Your task to perform on an android device: open app "WhatsApp Messenger" Image 0: 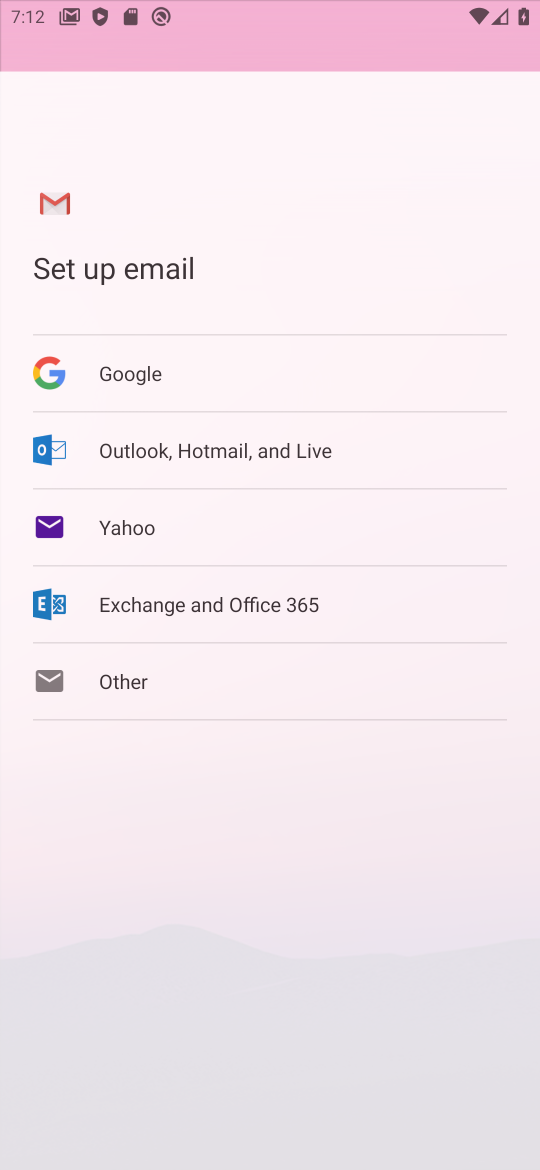
Step 0: press home button
Your task to perform on an android device: open app "WhatsApp Messenger" Image 1: 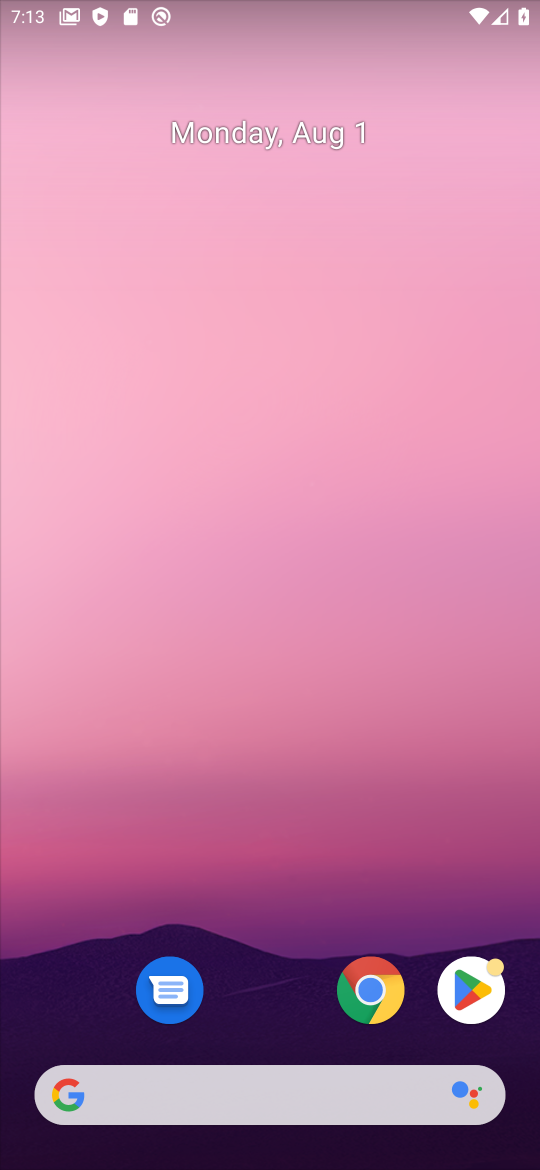
Step 1: click (464, 998)
Your task to perform on an android device: open app "WhatsApp Messenger" Image 2: 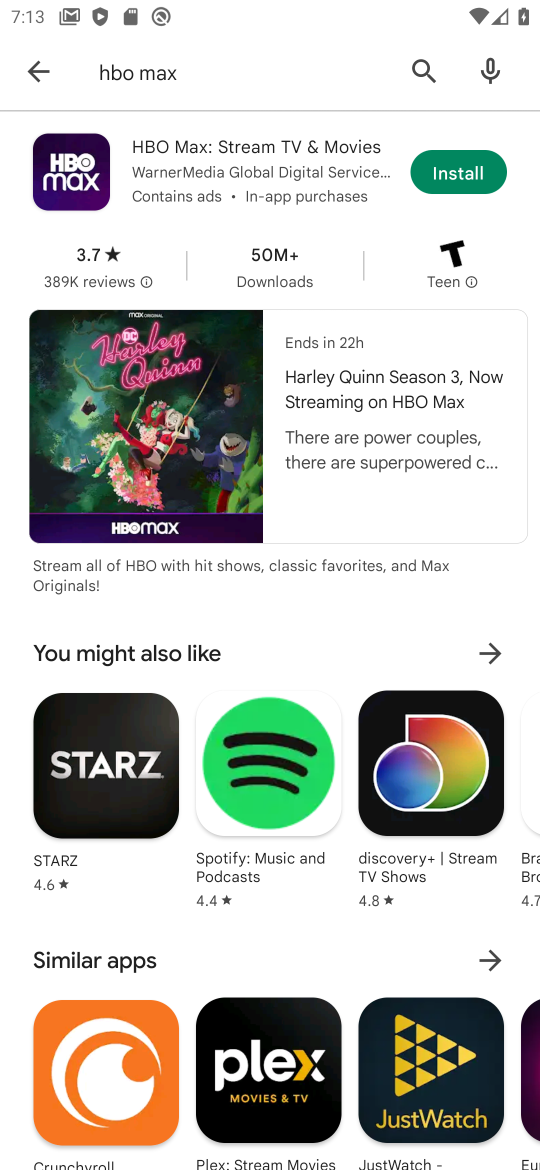
Step 2: click (416, 58)
Your task to perform on an android device: open app "WhatsApp Messenger" Image 3: 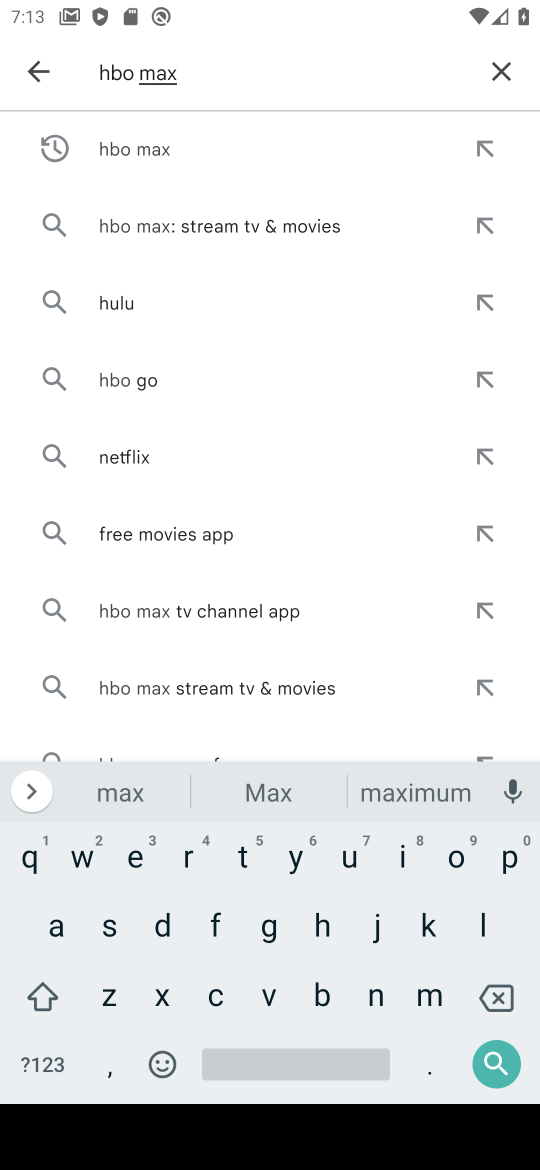
Step 3: click (506, 65)
Your task to perform on an android device: open app "WhatsApp Messenger" Image 4: 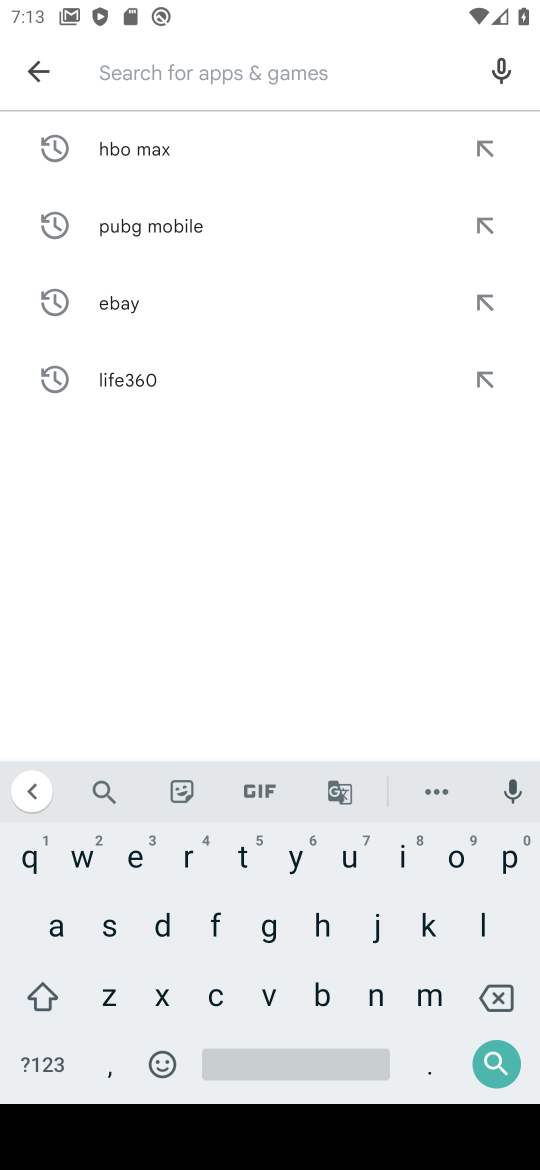
Step 4: click (80, 868)
Your task to perform on an android device: open app "WhatsApp Messenger" Image 5: 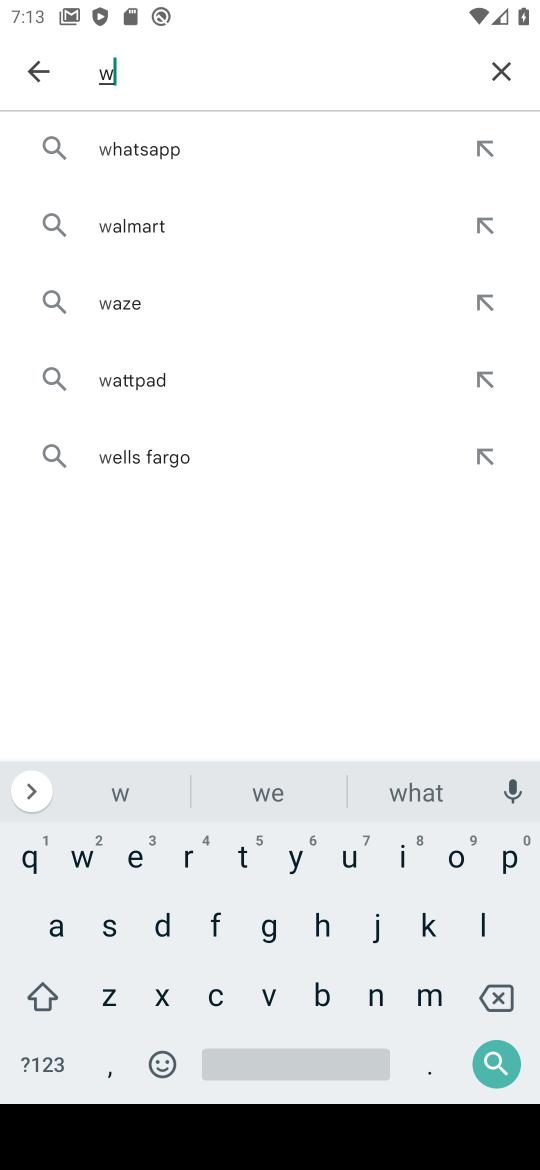
Step 5: click (316, 924)
Your task to perform on an android device: open app "WhatsApp Messenger" Image 6: 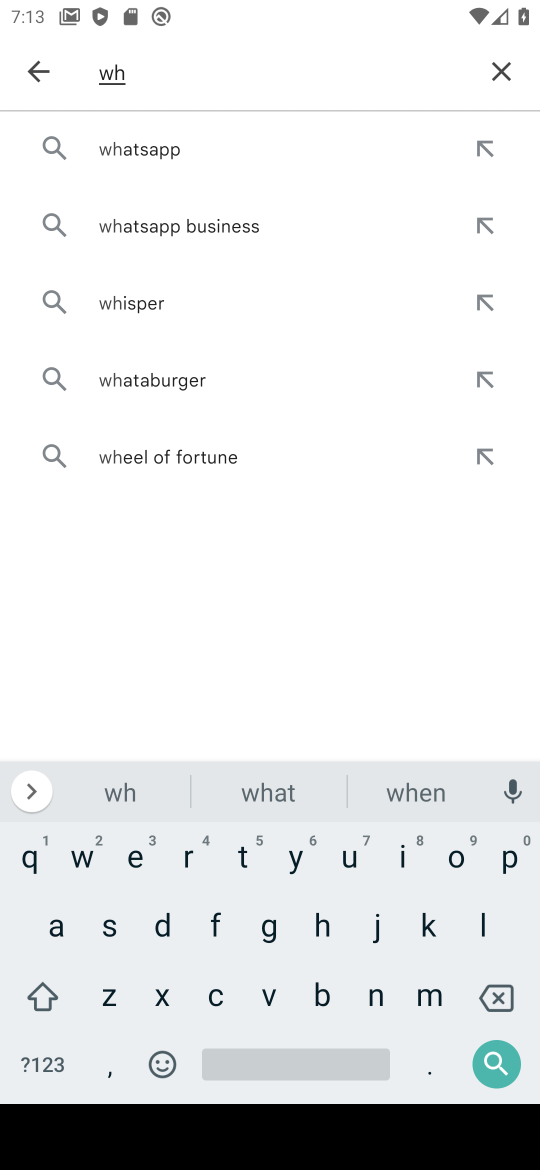
Step 6: click (174, 144)
Your task to perform on an android device: open app "WhatsApp Messenger" Image 7: 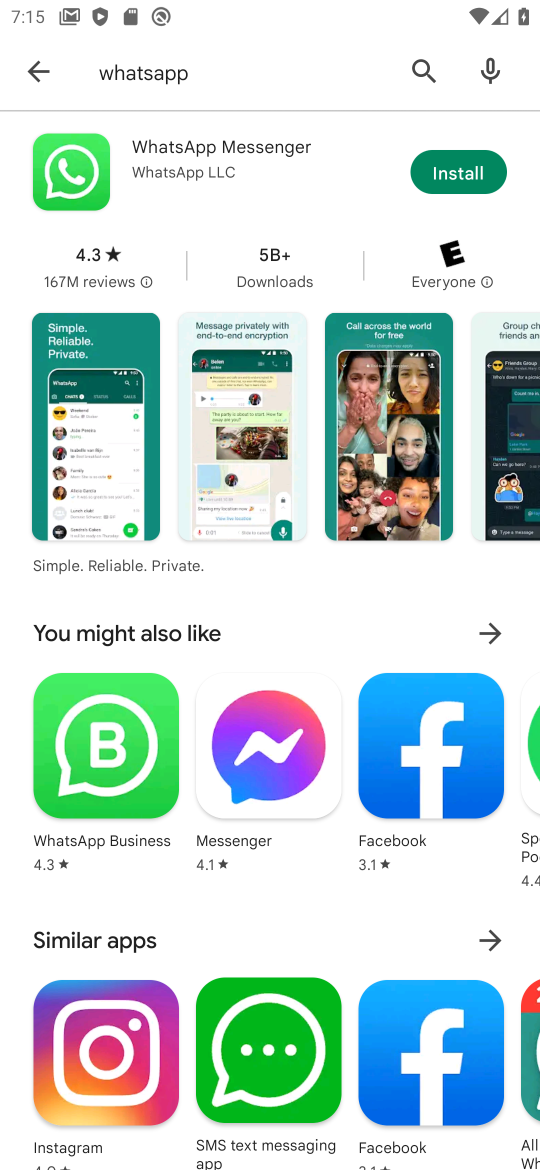
Step 7: task complete